Your task to perform on an android device: Search for sushi restaurants on Maps Image 0: 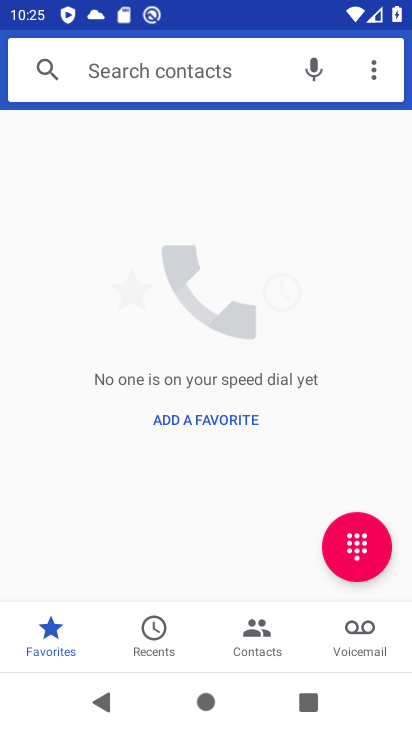
Step 0: press home button
Your task to perform on an android device: Search for sushi restaurants on Maps Image 1: 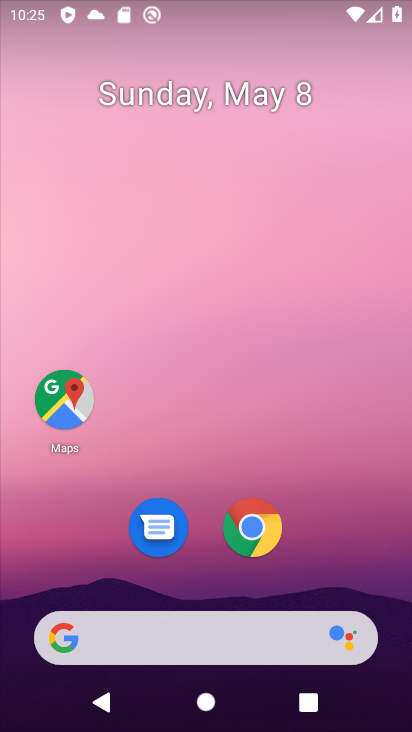
Step 1: click (68, 416)
Your task to perform on an android device: Search for sushi restaurants on Maps Image 2: 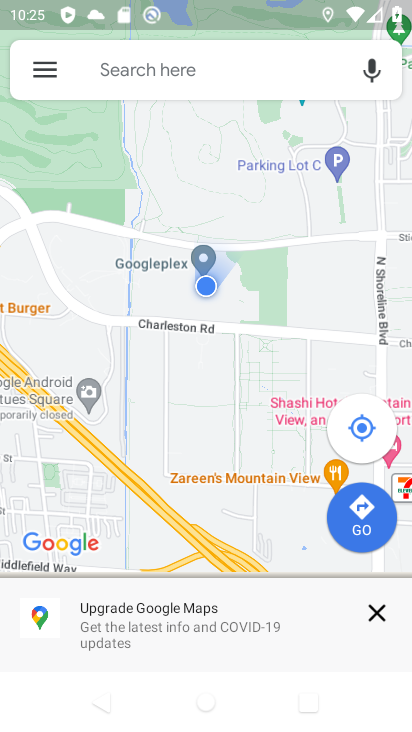
Step 2: click (240, 75)
Your task to perform on an android device: Search for sushi restaurants on Maps Image 3: 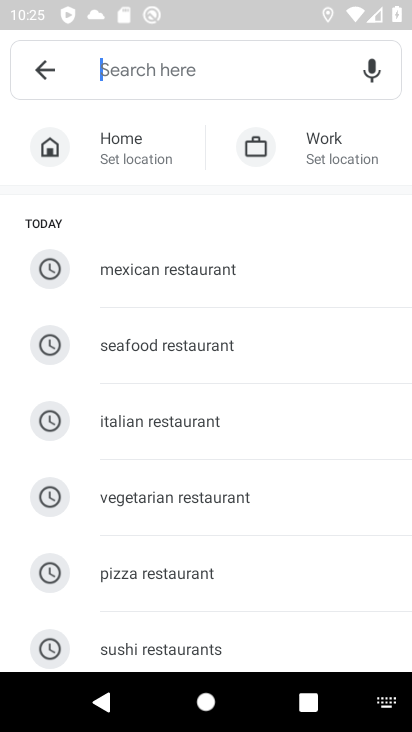
Step 3: click (187, 640)
Your task to perform on an android device: Search for sushi restaurants on Maps Image 4: 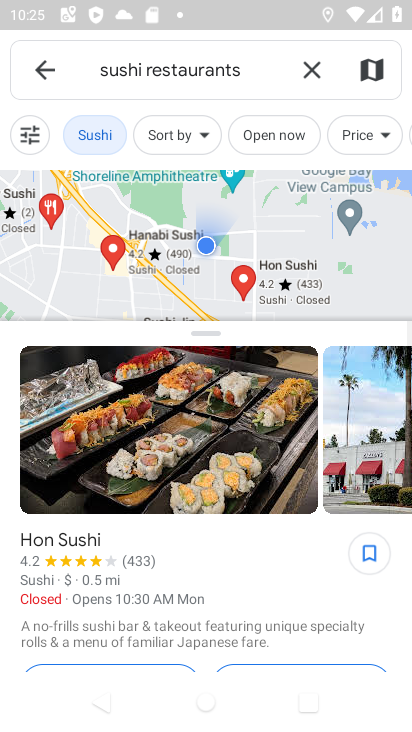
Step 4: task complete